Your task to perform on an android device: turn off javascript in the chrome app Image 0: 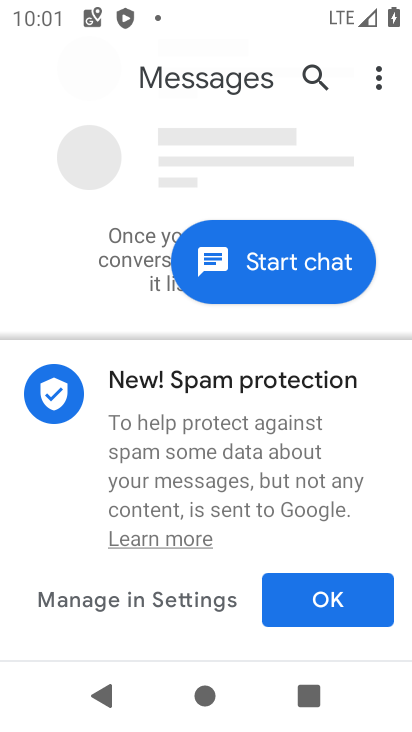
Step 0: press home button
Your task to perform on an android device: turn off javascript in the chrome app Image 1: 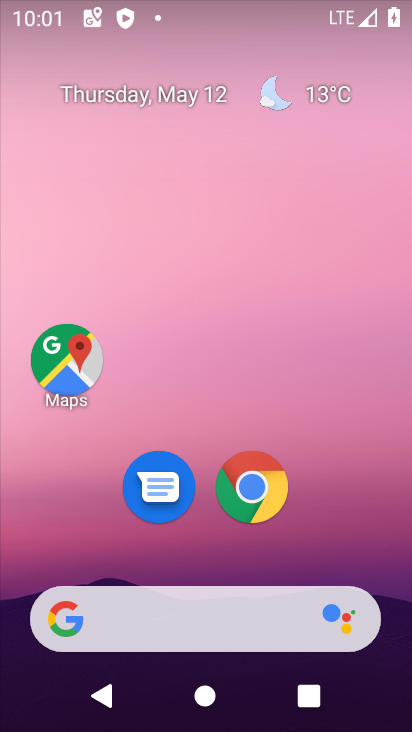
Step 1: click (259, 499)
Your task to perform on an android device: turn off javascript in the chrome app Image 2: 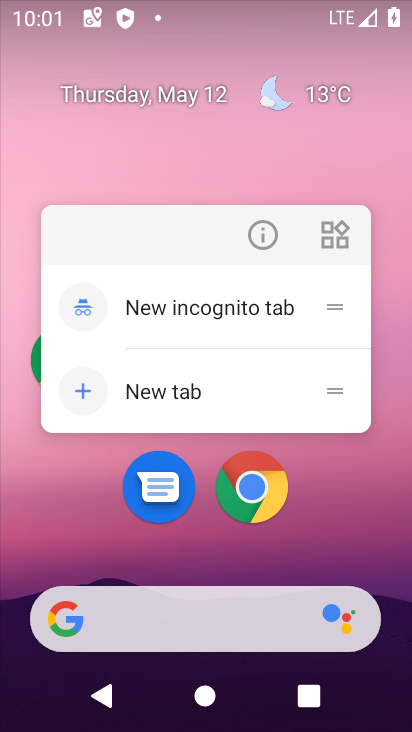
Step 2: click (259, 490)
Your task to perform on an android device: turn off javascript in the chrome app Image 3: 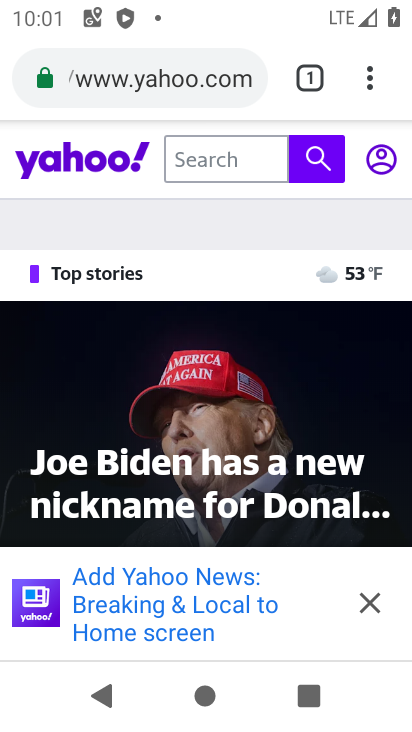
Step 3: click (371, 85)
Your task to perform on an android device: turn off javascript in the chrome app Image 4: 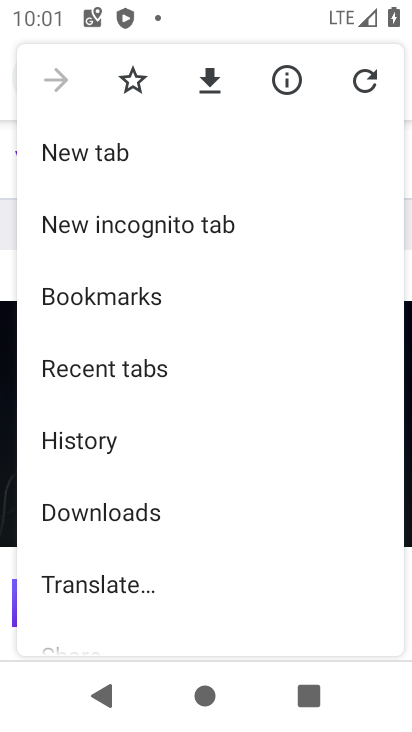
Step 4: drag from (230, 561) to (228, 271)
Your task to perform on an android device: turn off javascript in the chrome app Image 5: 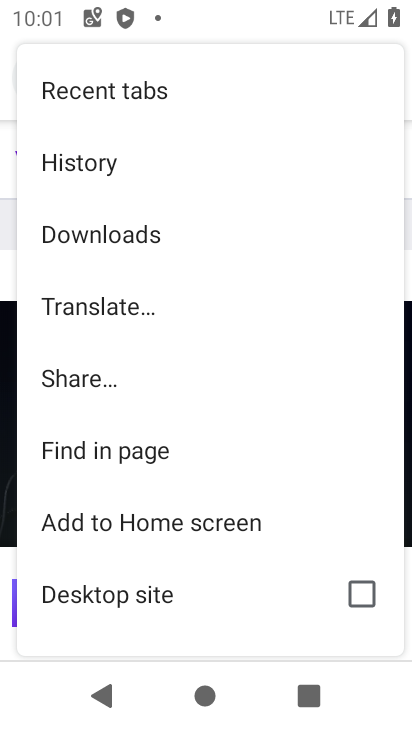
Step 5: drag from (279, 548) to (263, 261)
Your task to perform on an android device: turn off javascript in the chrome app Image 6: 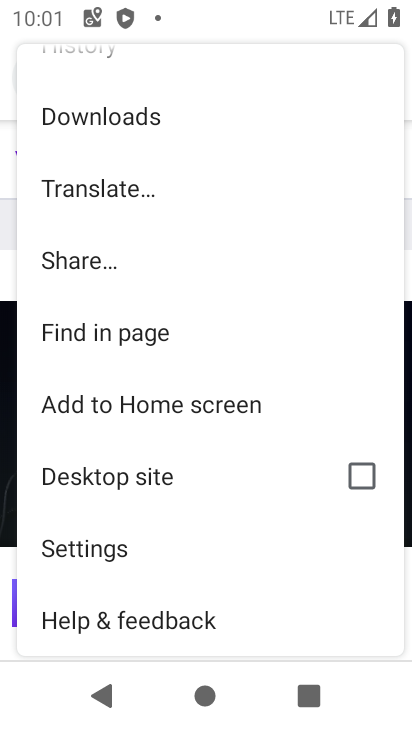
Step 6: click (104, 554)
Your task to perform on an android device: turn off javascript in the chrome app Image 7: 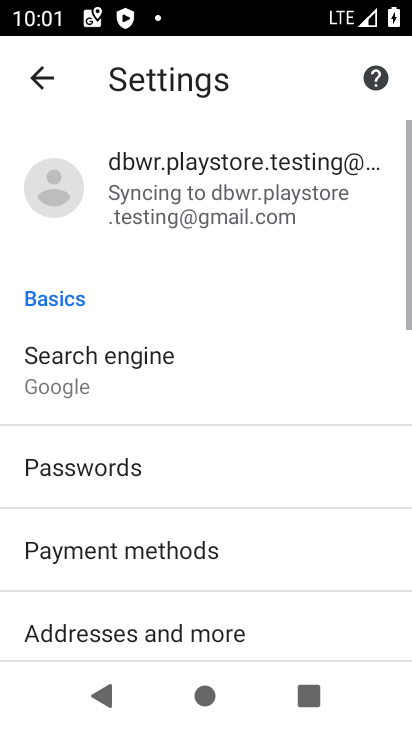
Step 7: drag from (257, 586) to (272, 183)
Your task to perform on an android device: turn off javascript in the chrome app Image 8: 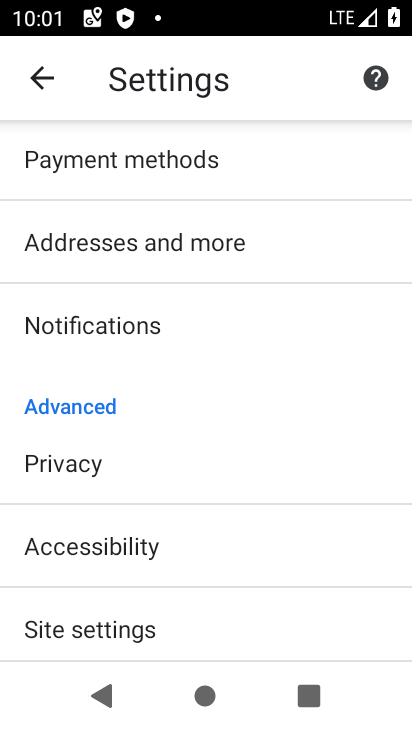
Step 8: drag from (291, 568) to (269, 156)
Your task to perform on an android device: turn off javascript in the chrome app Image 9: 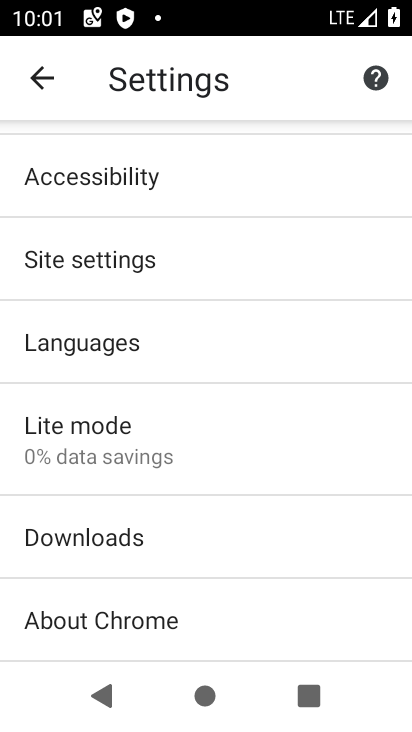
Step 9: click (75, 266)
Your task to perform on an android device: turn off javascript in the chrome app Image 10: 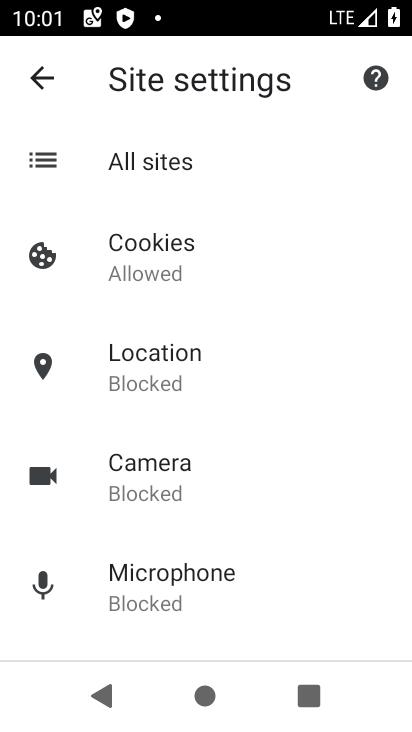
Step 10: drag from (301, 578) to (294, 230)
Your task to perform on an android device: turn off javascript in the chrome app Image 11: 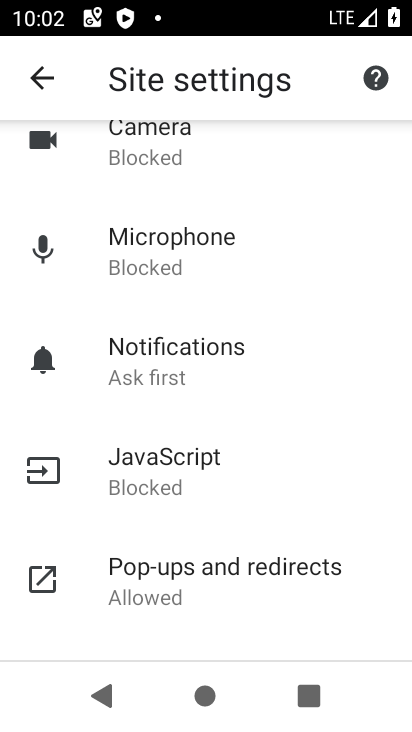
Step 11: click (163, 456)
Your task to perform on an android device: turn off javascript in the chrome app Image 12: 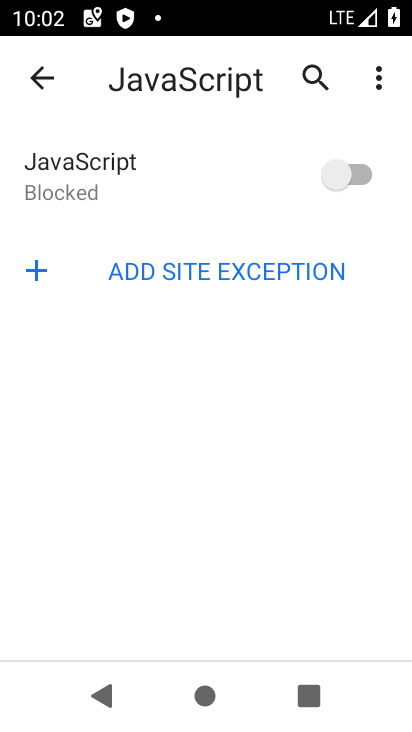
Step 12: task complete